Your task to perform on an android device: Open the calendar and show me this week's events Image 0: 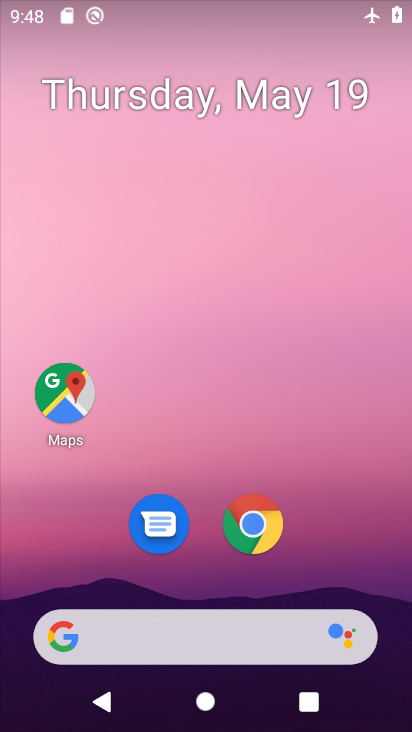
Step 0: drag from (240, 421) to (232, 33)
Your task to perform on an android device: Open the calendar and show me this week's events Image 1: 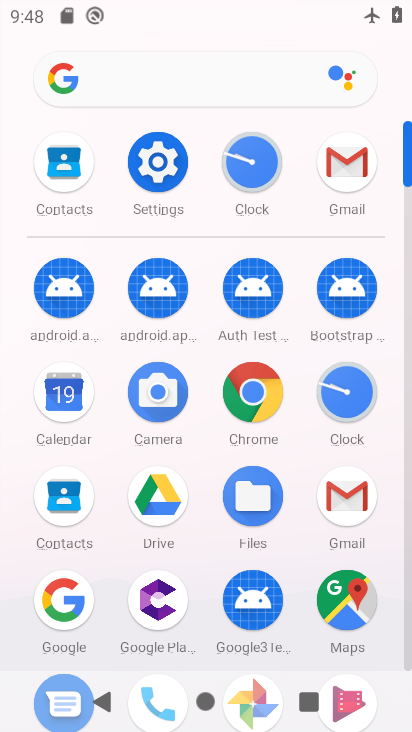
Step 1: click (70, 396)
Your task to perform on an android device: Open the calendar and show me this week's events Image 2: 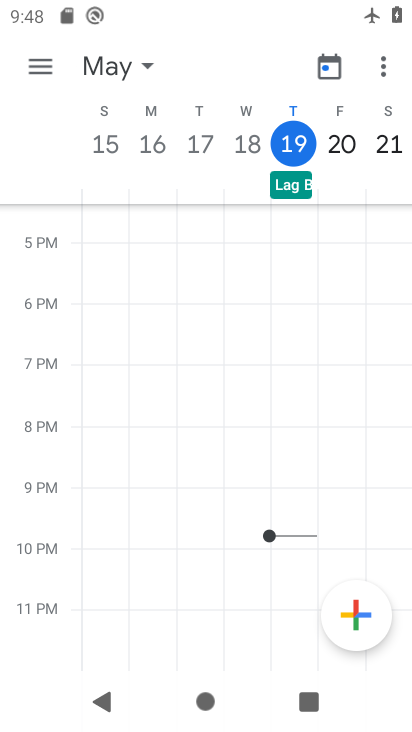
Step 2: task complete